Your task to perform on an android device: turn off picture-in-picture Image 0: 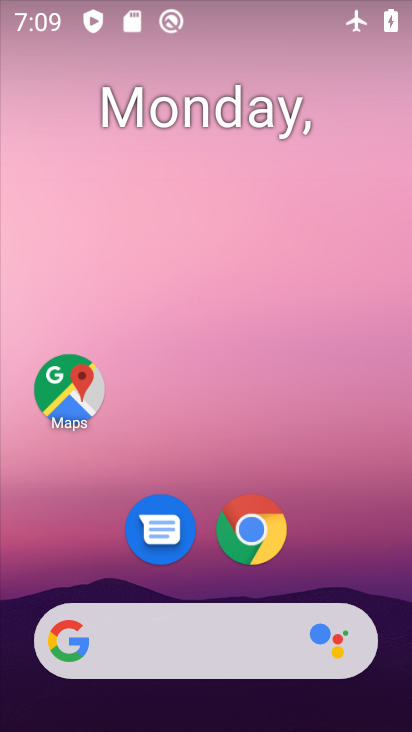
Step 0: drag from (284, 450) to (178, 99)
Your task to perform on an android device: turn off picture-in-picture Image 1: 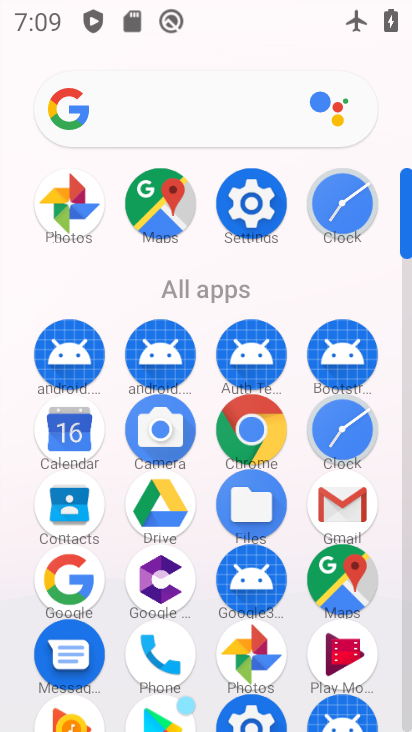
Step 1: click (250, 192)
Your task to perform on an android device: turn off picture-in-picture Image 2: 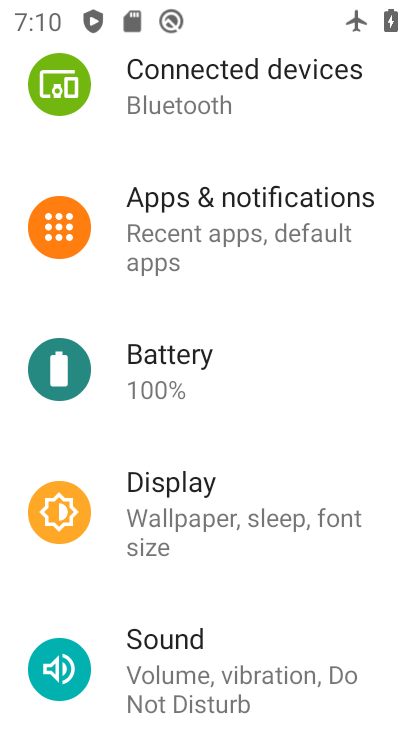
Step 2: click (244, 200)
Your task to perform on an android device: turn off picture-in-picture Image 3: 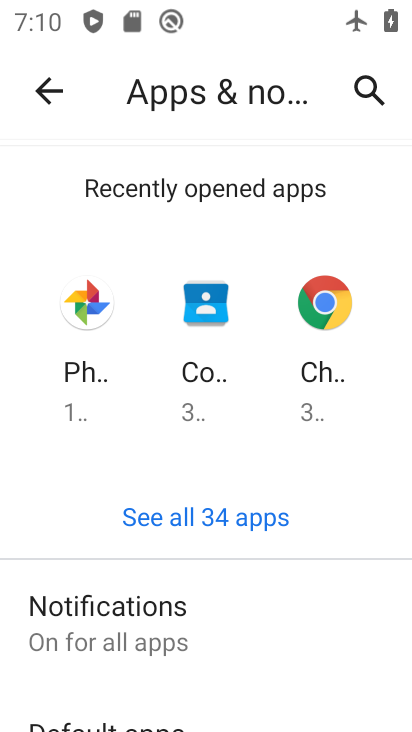
Step 3: drag from (255, 593) to (159, 309)
Your task to perform on an android device: turn off picture-in-picture Image 4: 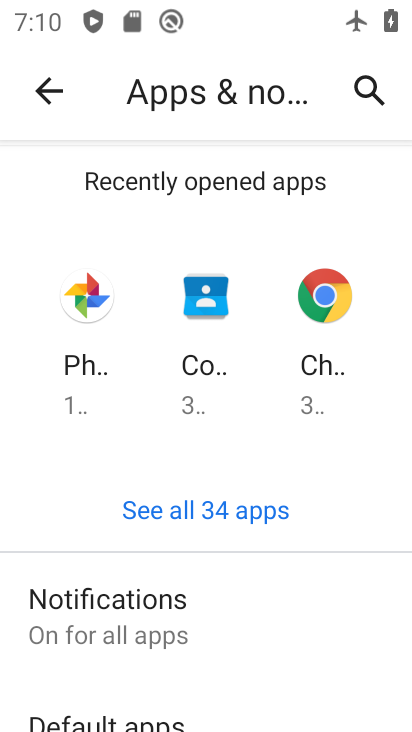
Step 4: drag from (207, 595) to (134, 303)
Your task to perform on an android device: turn off picture-in-picture Image 5: 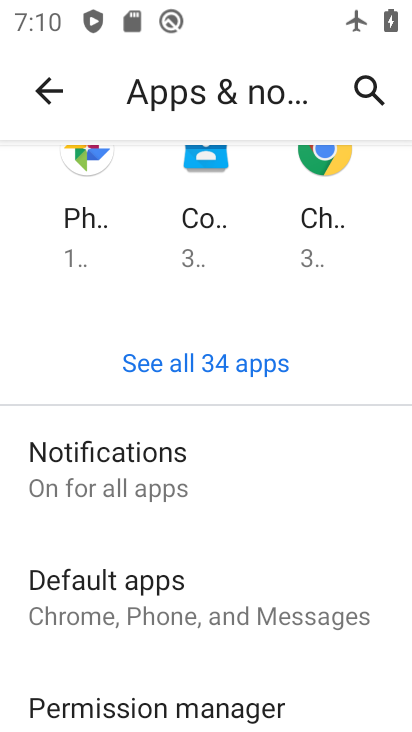
Step 5: drag from (208, 626) to (141, 310)
Your task to perform on an android device: turn off picture-in-picture Image 6: 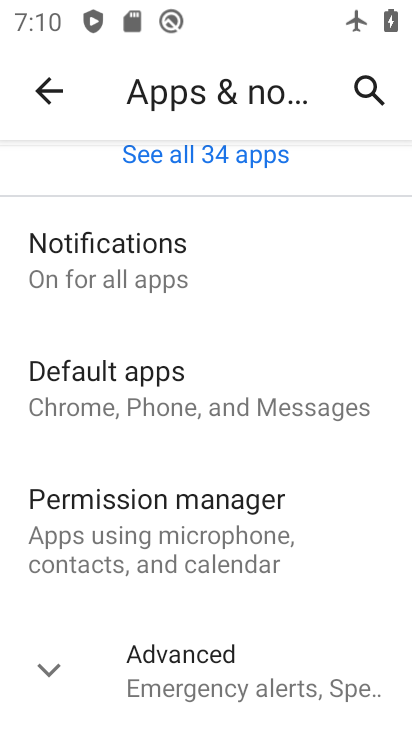
Step 6: click (143, 661)
Your task to perform on an android device: turn off picture-in-picture Image 7: 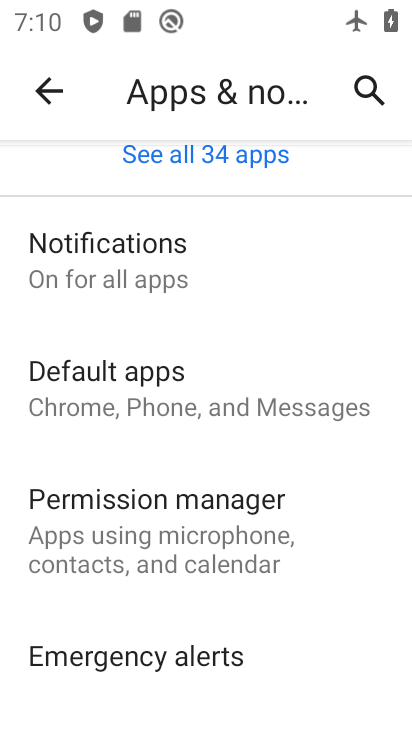
Step 7: drag from (201, 615) to (67, 251)
Your task to perform on an android device: turn off picture-in-picture Image 8: 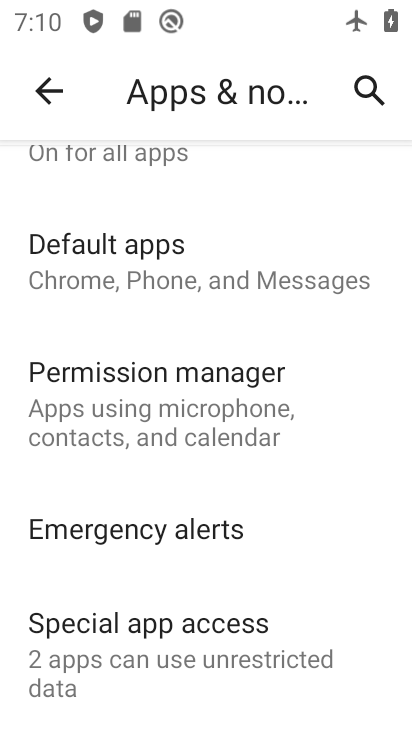
Step 8: click (115, 619)
Your task to perform on an android device: turn off picture-in-picture Image 9: 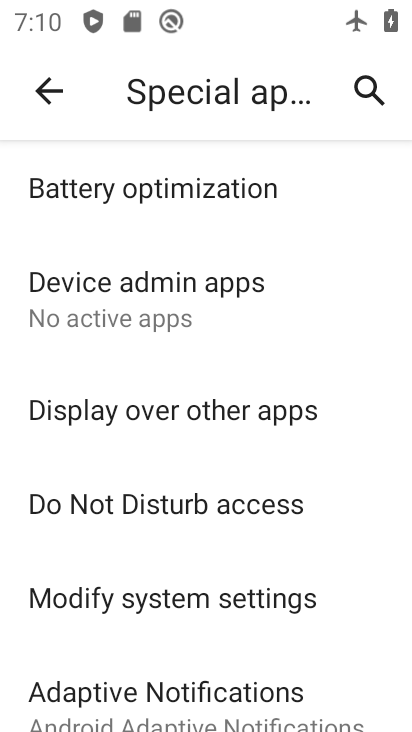
Step 9: drag from (187, 561) to (126, 302)
Your task to perform on an android device: turn off picture-in-picture Image 10: 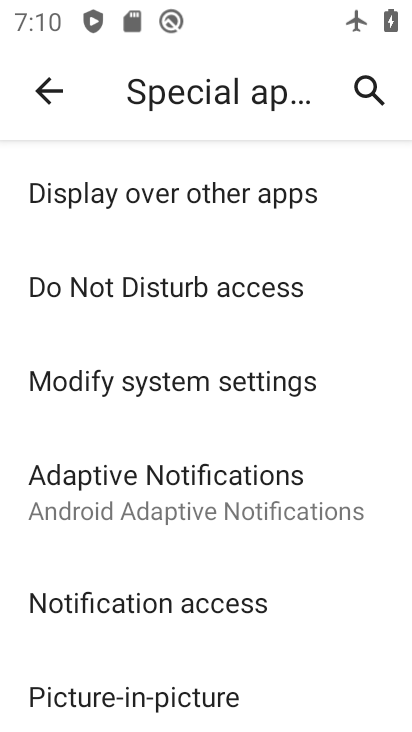
Step 10: click (182, 699)
Your task to perform on an android device: turn off picture-in-picture Image 11: 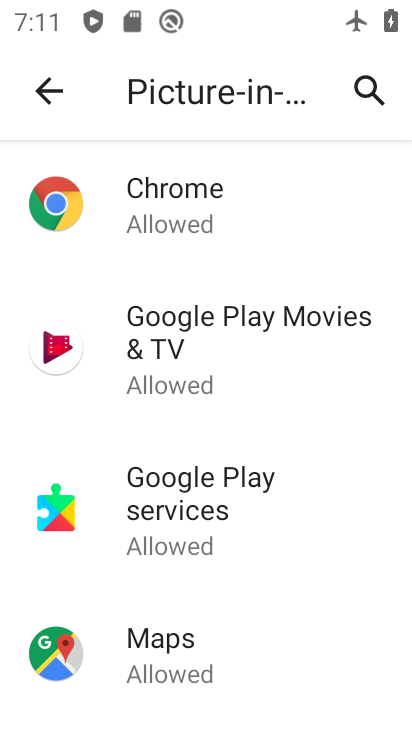
Step 11: drag from (233, 555) to (132, 222)
Your task to perform on an android device: turn off picture-in-picture Image 12: 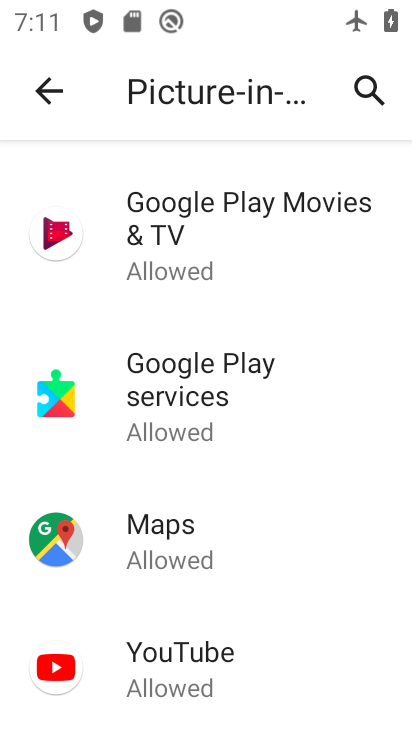
Step 12: click (166, 677)
Your task to perform on an android device: turn off picture-in-picture Image 13: 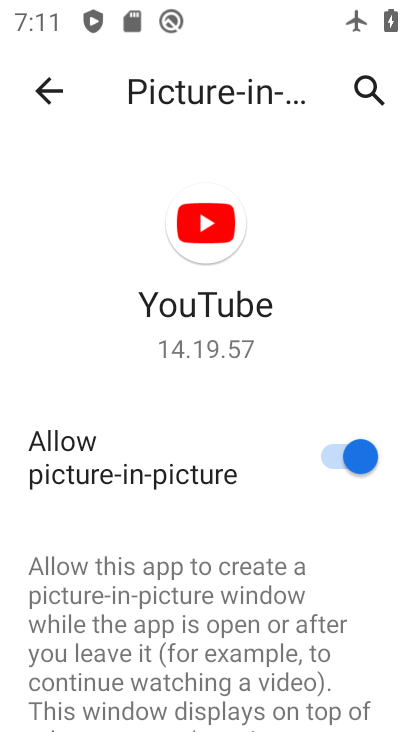
Step 13: click (345, 453)
Your task to perform on an android device: turn off picture-in-picture Image 14: 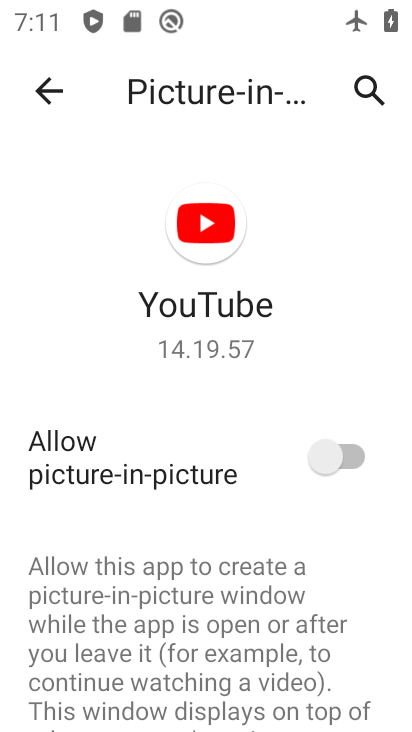
Step 14: click (40, 78)
Your task to perform on an android device: turn off picture-in-picture Image 15: 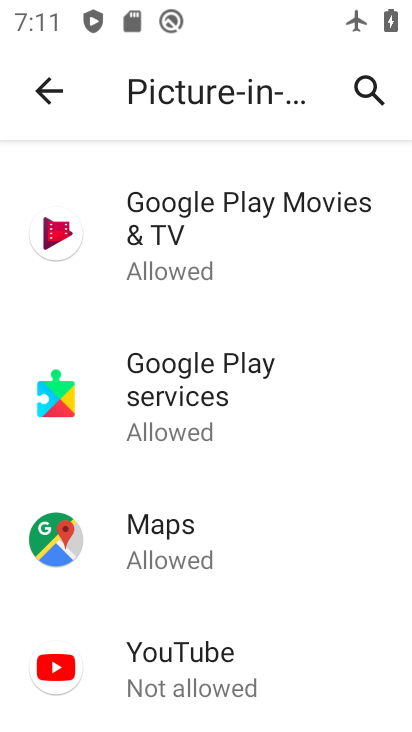
Step 15: click (161, 220)
Your task to perform on an android device: turn off picture-in-picture Image 16: 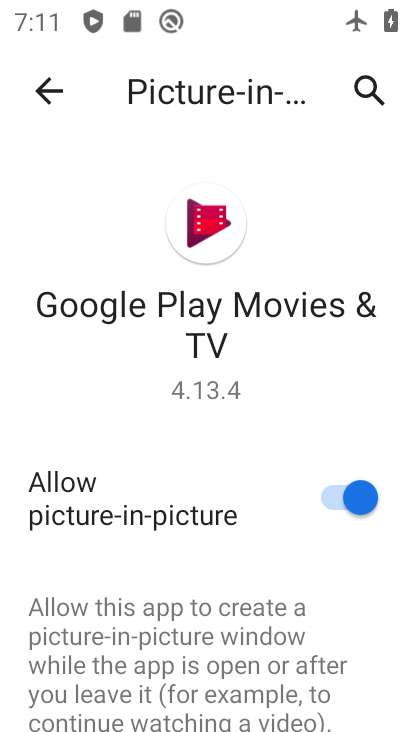
Step 16: click (357, 494)
Your task to perform on an android device: turn off picture-in-picture Image 17: 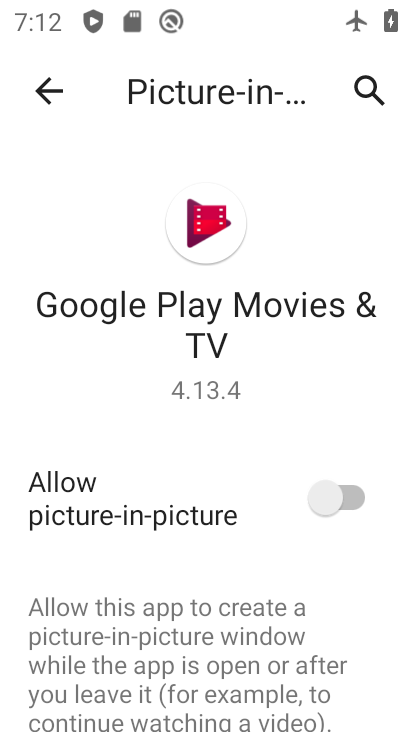
Step 17: click (45, 95)
Your task to perform on an android device: turn off picture-in-picture Image 18: 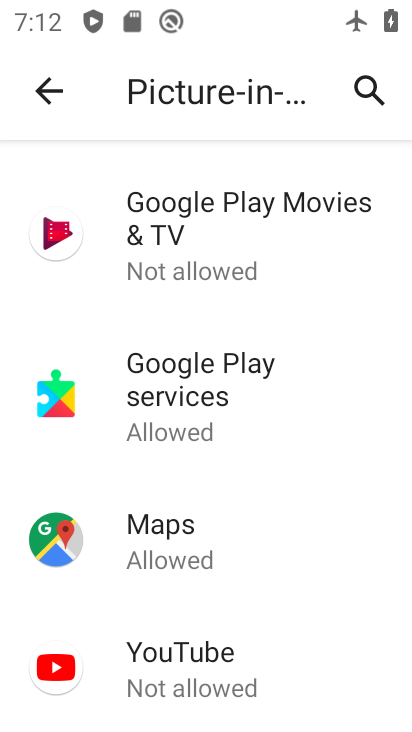
Step 18: drag from (353, 277) to (298, 589)
Your task to perform on an android device: turn off picture-in-picture Image 19: 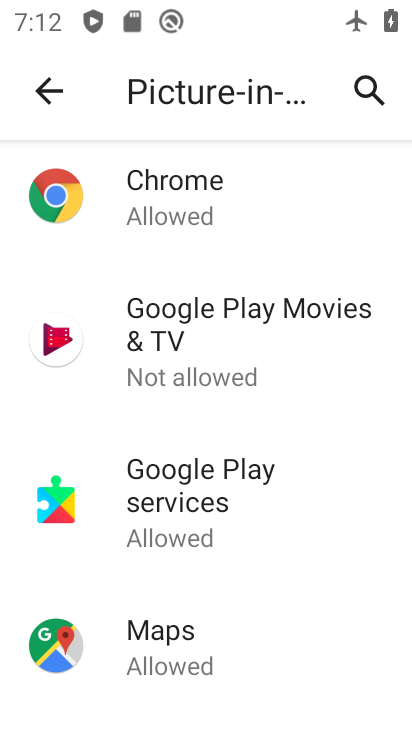
Step 19: click (153, 178)
Your task to perform on an android device: turn off picture-in-picture Image 20: 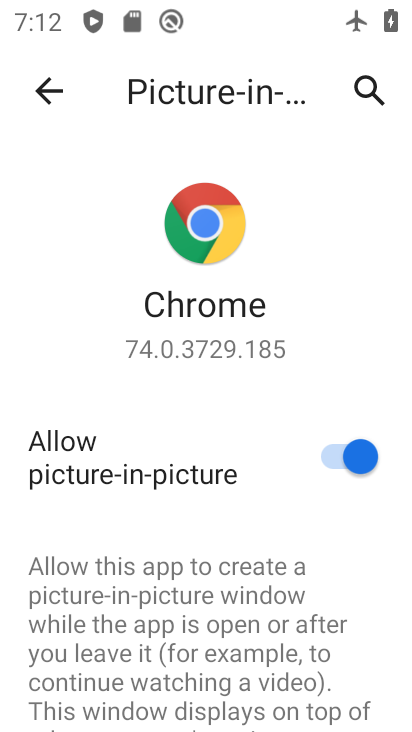
Step 20: click (346, 440)
Your task to perform on an android device: turn off picture-in-picture Image 21: 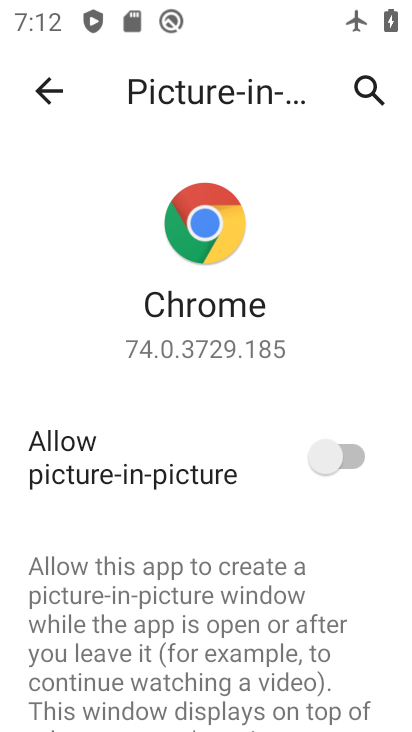
Step 21: click (52, 86)
Your task to perform on an android device: turn off picture-in-picture Image 22: 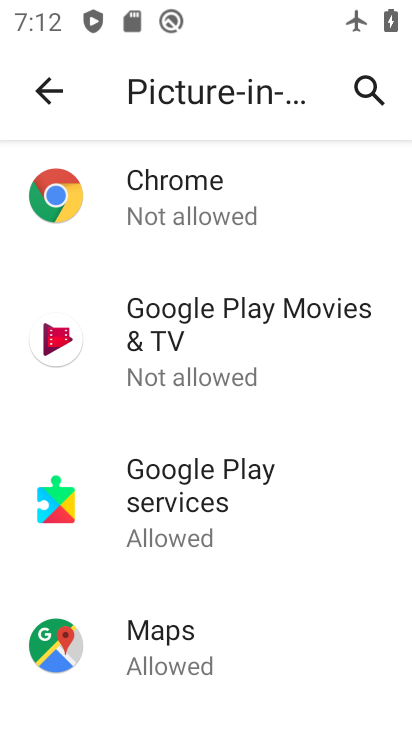
Step 22: click (182, 518)
Your task to perform on an android device: turn off picture-in-picture Image 23: 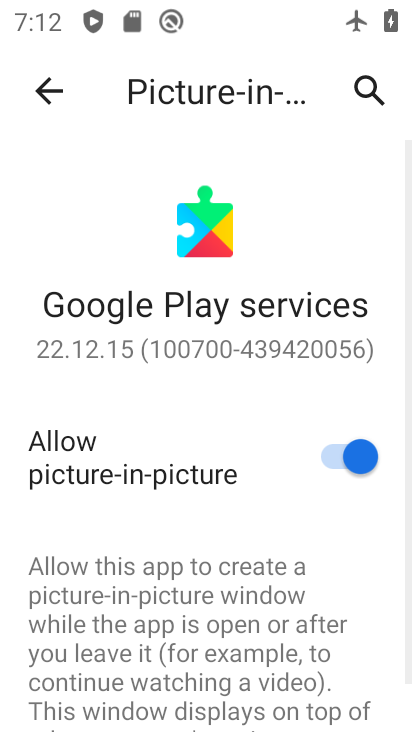
Step 23: click (341, 455)
Your task to perform on an android device: turn off picture-in-picture Image 24: 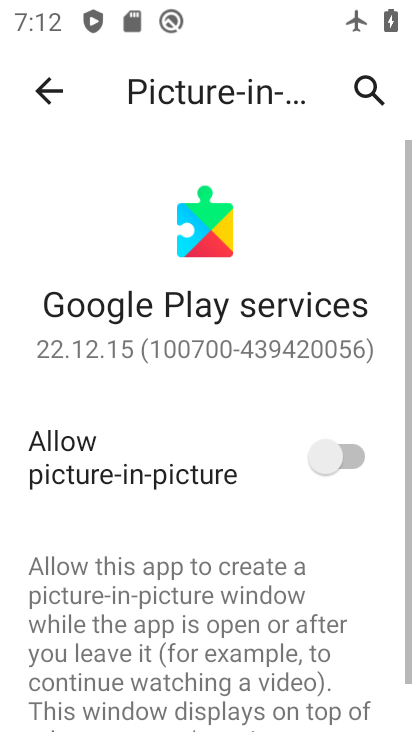
Step 24: click (53, 103)
Your task to perform on an android device: turn off picture-in-picture Image 25: 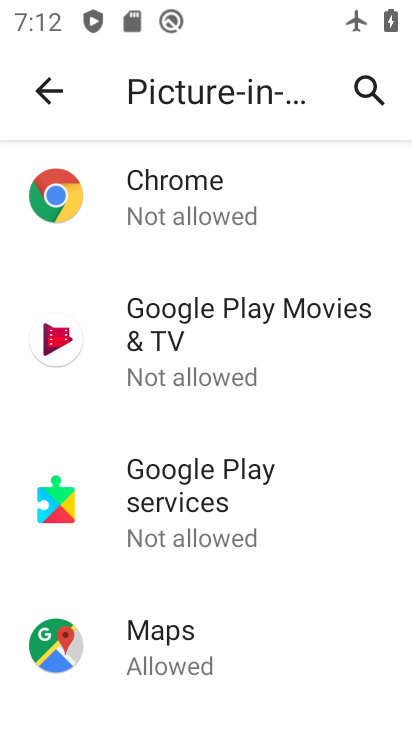
Step 25: drag from (276, 552) to (225, 272)
Your task to perform on an android device: turn off picture-in-picture Image 26: 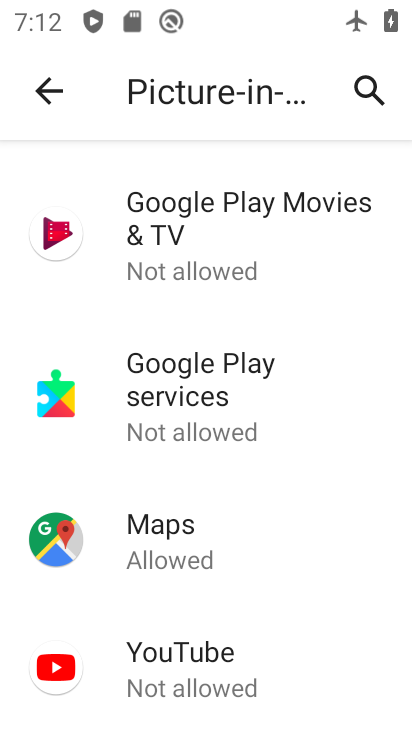
Step 26: click (162, 537)
Your task to perform on an android device: turn off picture-in-picture Image 27: 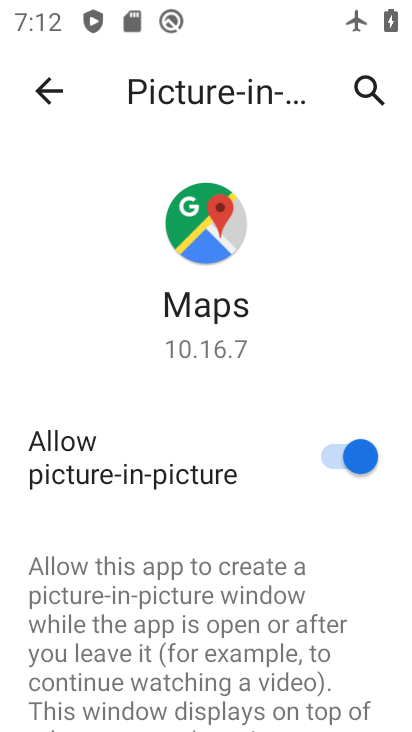
Step 27: click (346, 448)
Your task to perform on an android device: turn off picture-in-picture Image 28: 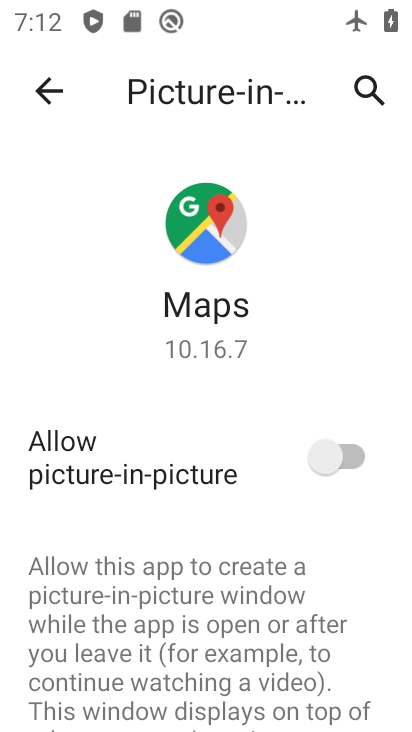
Step 28: click (34, 82)
Your task to perform on an android device: turn off picture-in-picture Image 29: 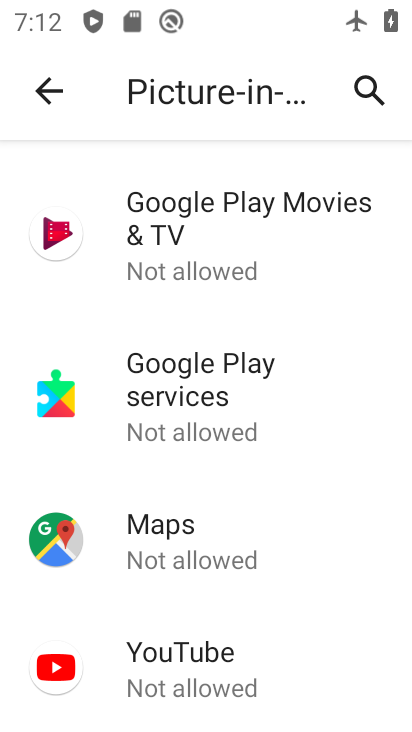
Step 29: task complete